Your task to perform on an android device: Open network settings Image 0: 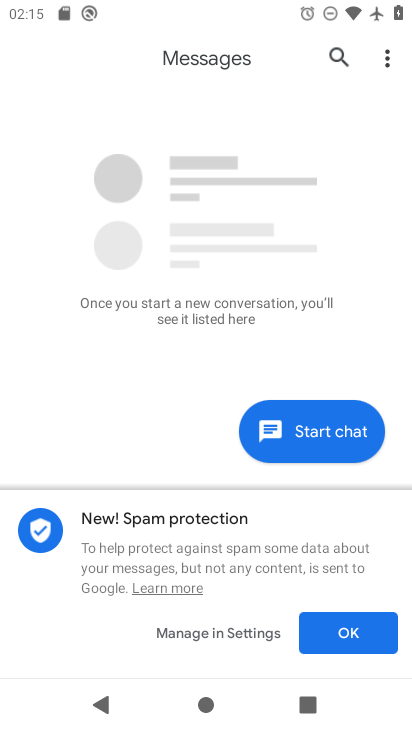
Step 0: press home button
Your task to perform on an android device: Open network settings Image 1: 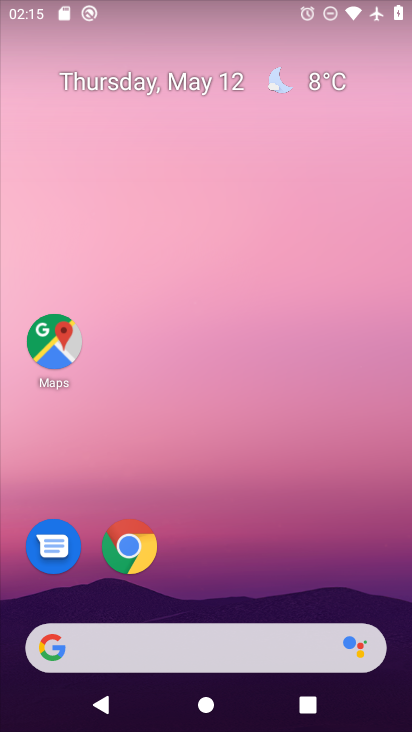
Step 1: drag from (164, 606) to (245, 241)
Your task to perform on an android device: Open network settings Image 2: 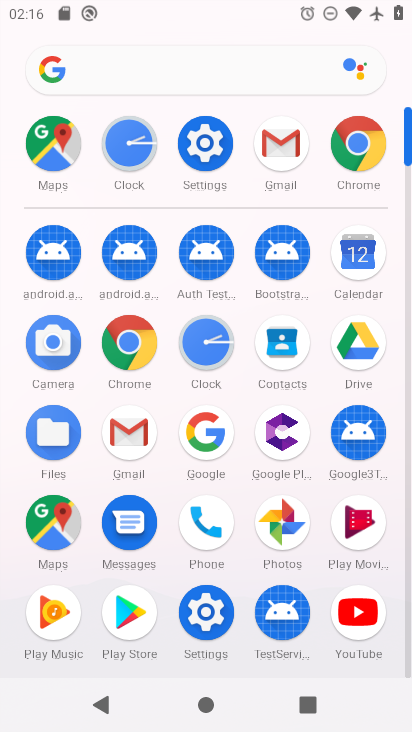
Step 2: click (207, 147)
Your task to perform on an android device: Open network settings Image 3: 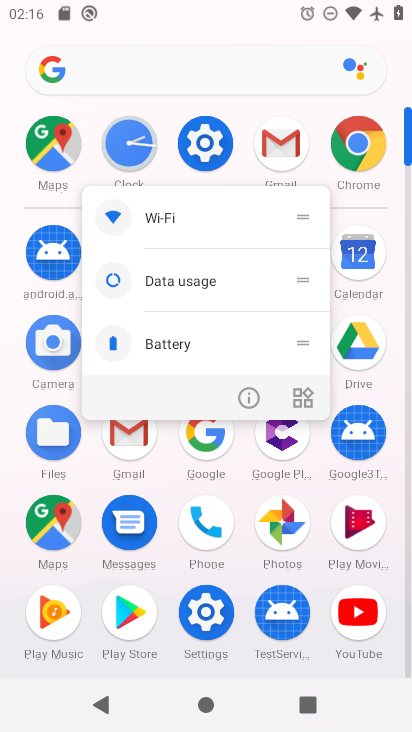
Step 3: click (203, 148)
Your task to perform on an android device: Open network settings Image 4: 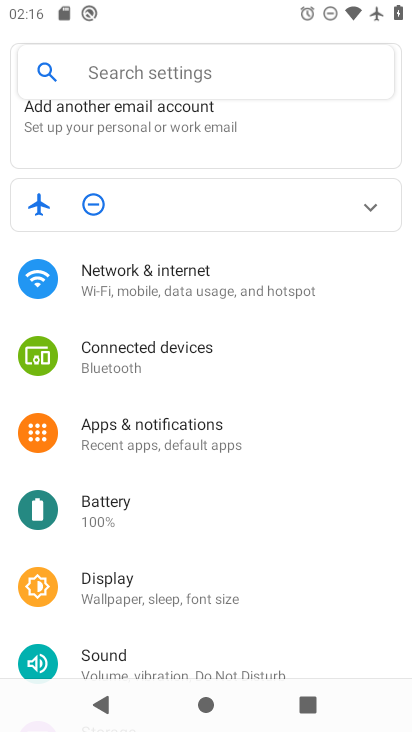
Step 4: click (195, 275)
Your task to perform on an android device: Open network settings Image 5: 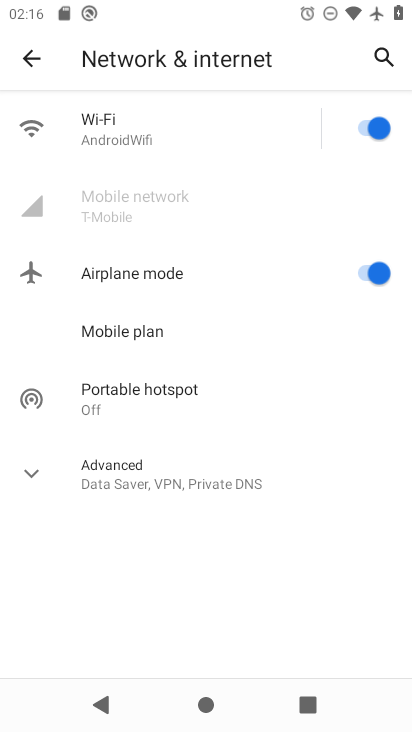
Step 5: task complete